Your task to perform on an android device: set the stopwatch Image 0: 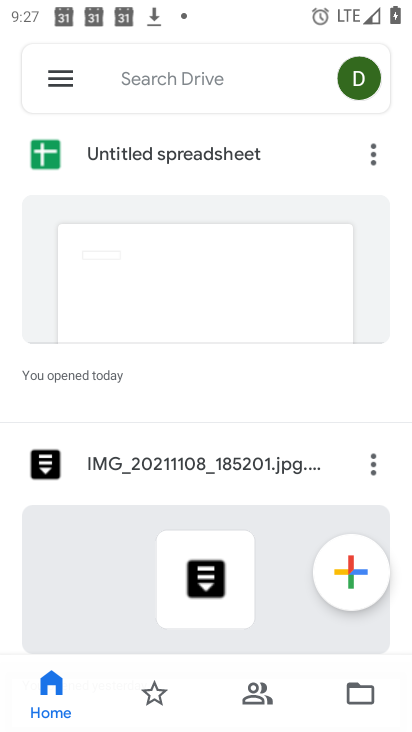
Step 0: press home button
Your task to perform on an android device: set the stopwatch Image 1: 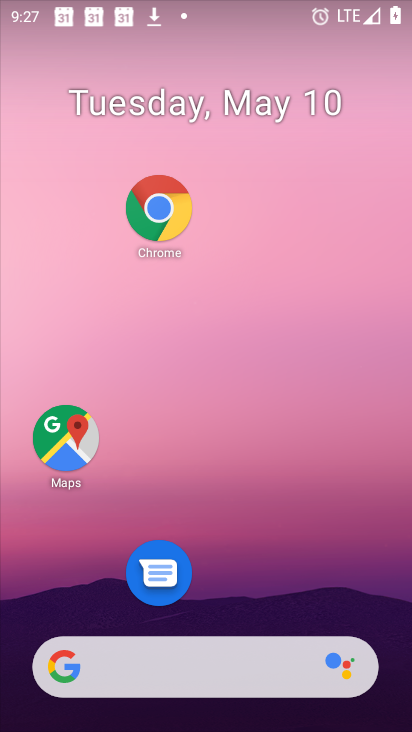
Step 1: drag from (294, 701) to (240, 296)
Your task to perform on an android device: set the stopwatch Image 2: 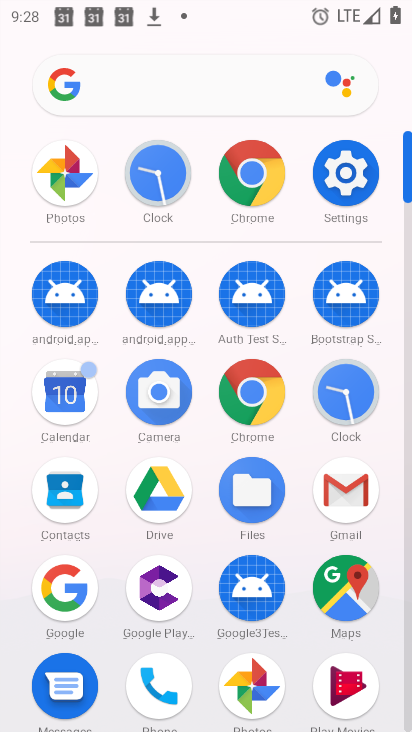
Step 2: click (158, 176)
Your task to perform on an android device: set the stopwatch Image 3: 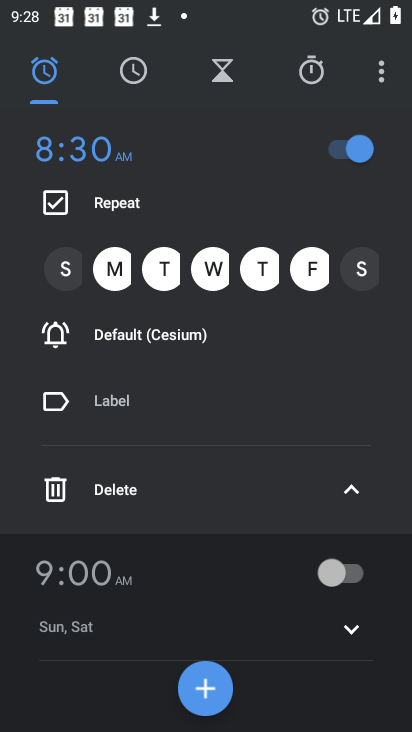
Step 3: click (319, 72)
Your task to perform on an android device: set the stopwatch Image 4: 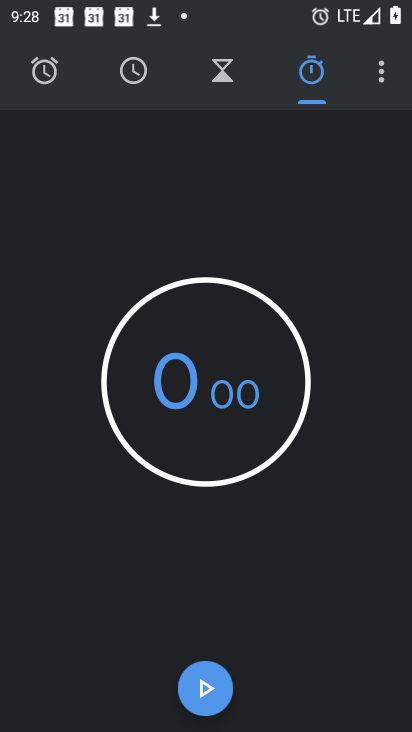
Step 4: task complete